Your task to perform on an android device: stop showing notifications on the lock screen Image 0: 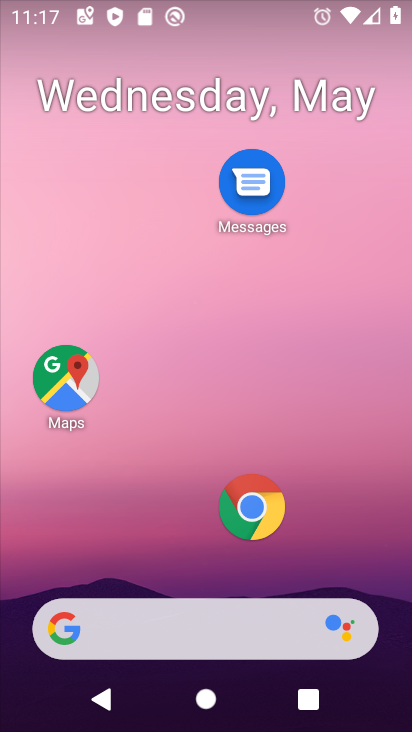
Step 0: drag from (194, 579) to (257, 6)
Your task to perform on an android device: stop showing notifications on the lock screen Image 1: 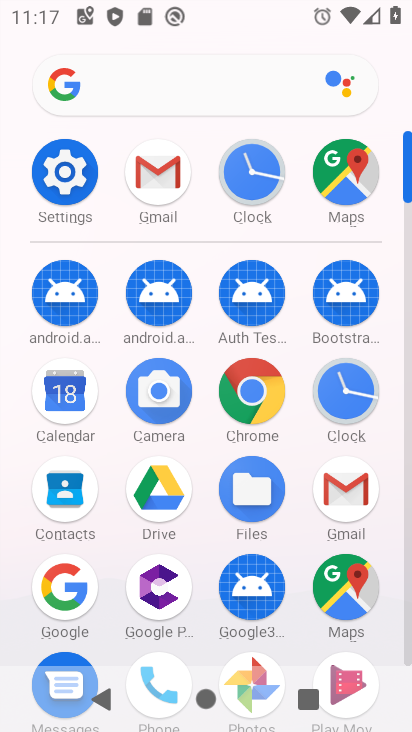
Step 1: click (59, 172)
Your task to perform on an android device: stop showing notifications on the lock screen Image 2: 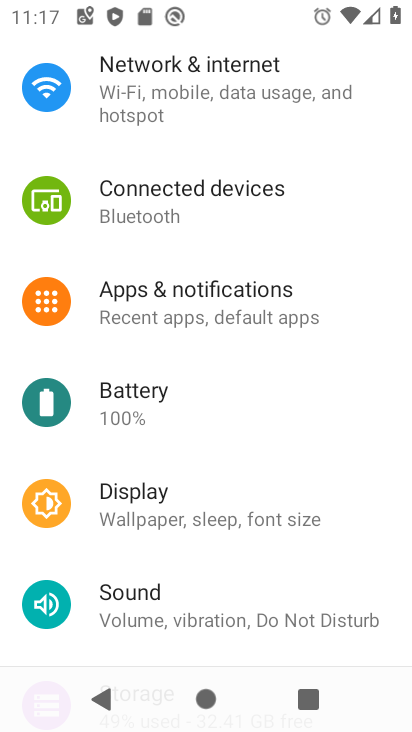
Step 2: click (208, 292)
Your task to perform on an android device: stop showing notifications on the lock screen Image 3: 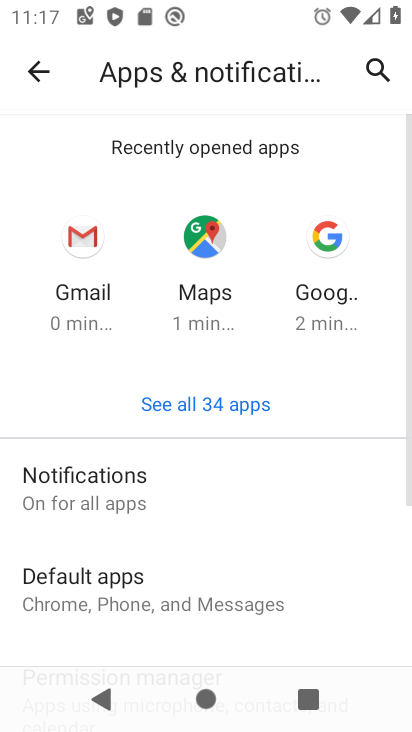
Step 3: click (162, 482)
Your task to perform on an android device: stop showing notifications on the lock screen Image 4: 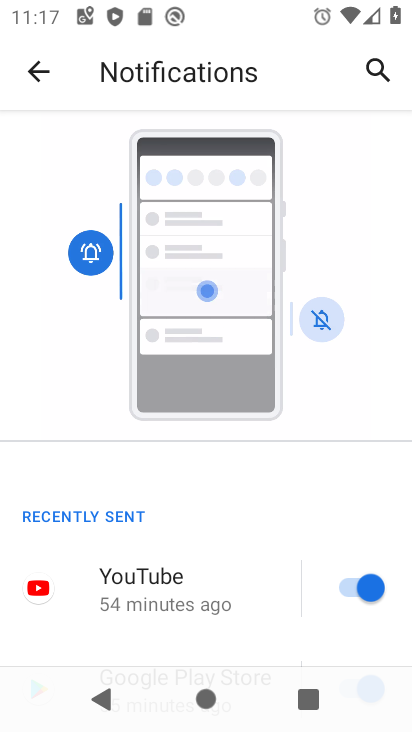
Step 4: drag from (201, 598) to (266, 191)
Your task to perform on an android device: stop showing notifications on the lock screen Image 5: 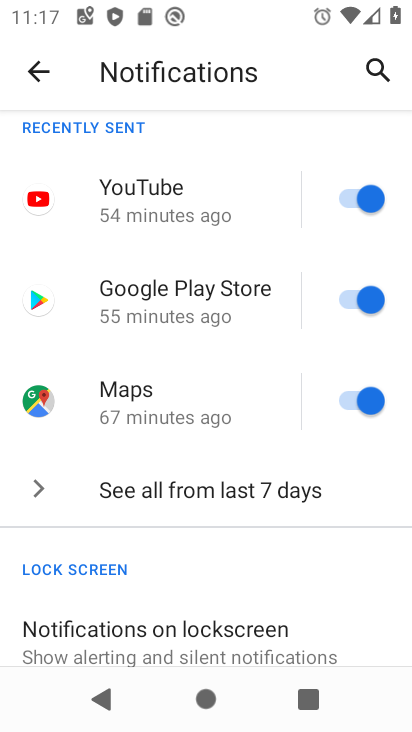
Step 5: drag from (234, 584) to (277, 237)
Your task to perform on an android device: stop showing notifications on the lock screen Image 6: 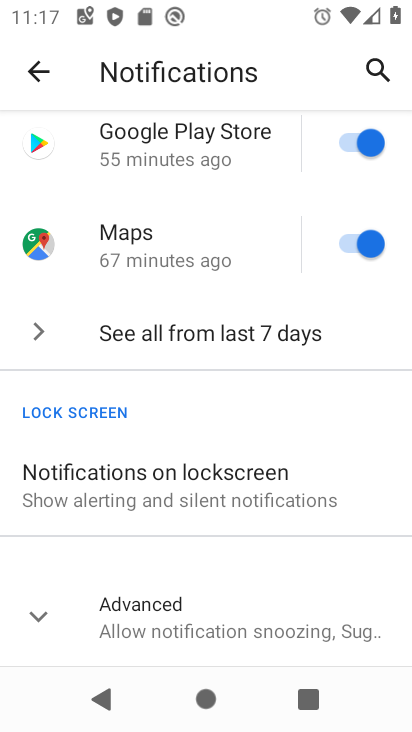
Step 6: click (219, 489)
Your task to perform on an android device: stop showing notifications on the lock screen Image 7: 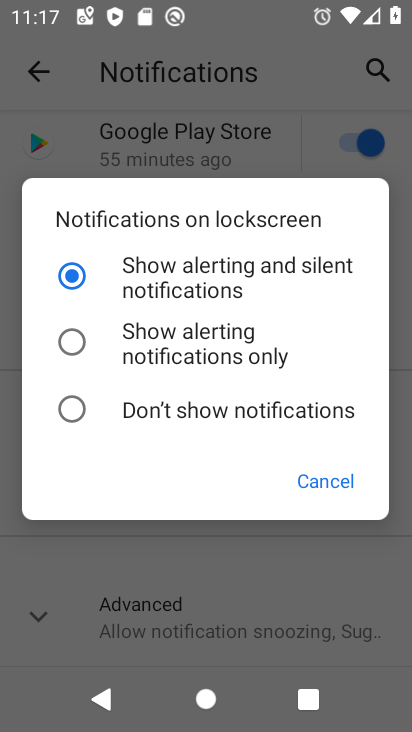
Step 7: click (68, 410)
Your task to perform on an android device: stop showing notifications on the lock screen Image 8: 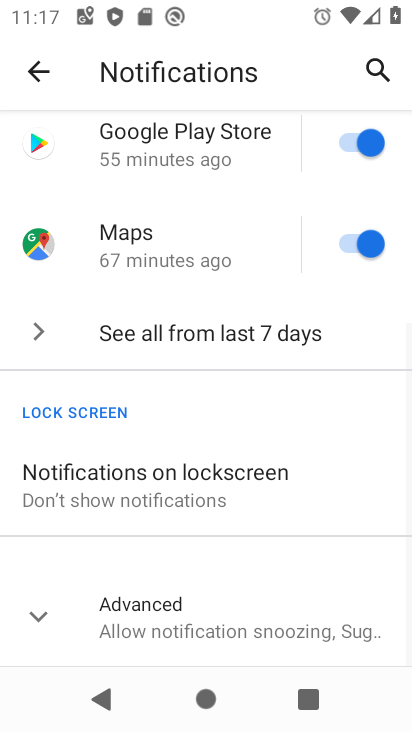
Step 8: task complete